Your task to perform on an android device: Do I have any events tomorrow? Image 0: 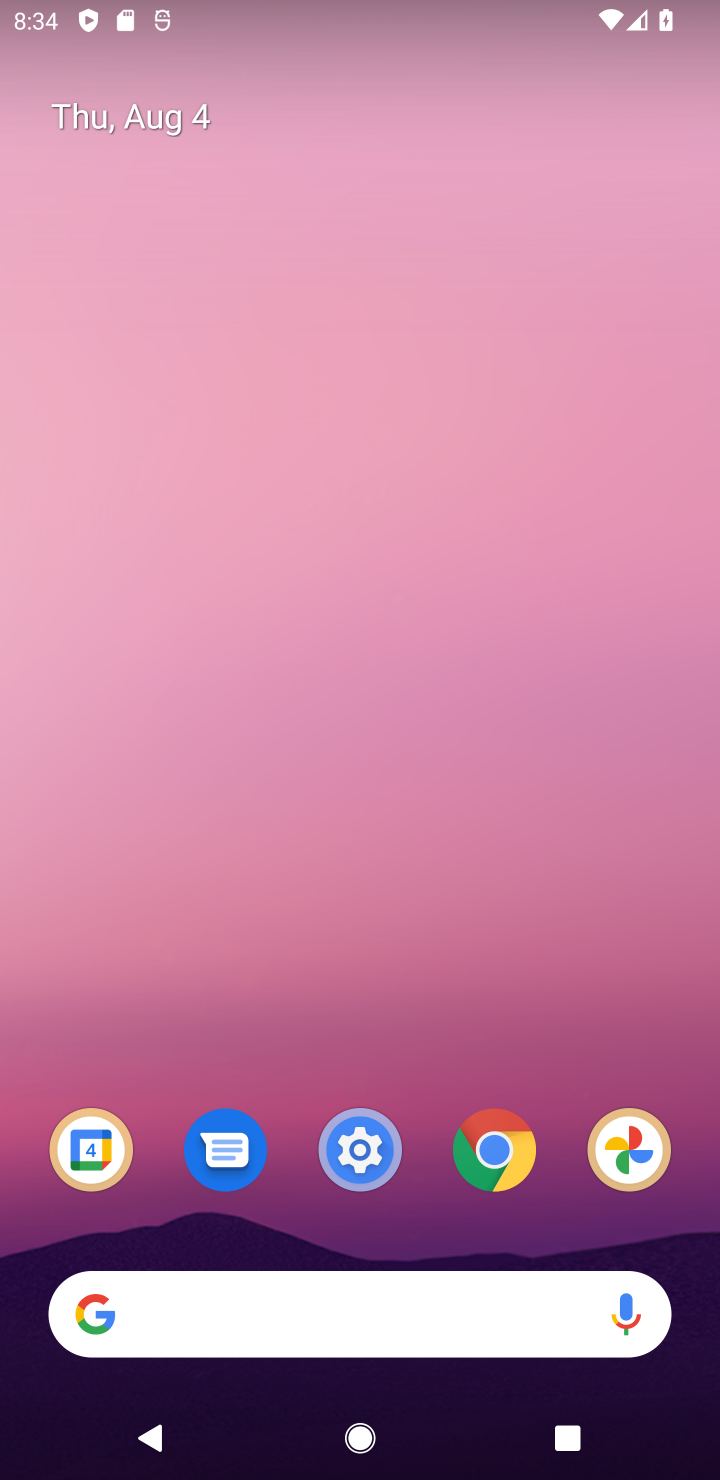
Step 0: drag from (371, 1240) to (659, 37)
Your task to perform on an android device: Do I have any events tomorrow? Image 1: 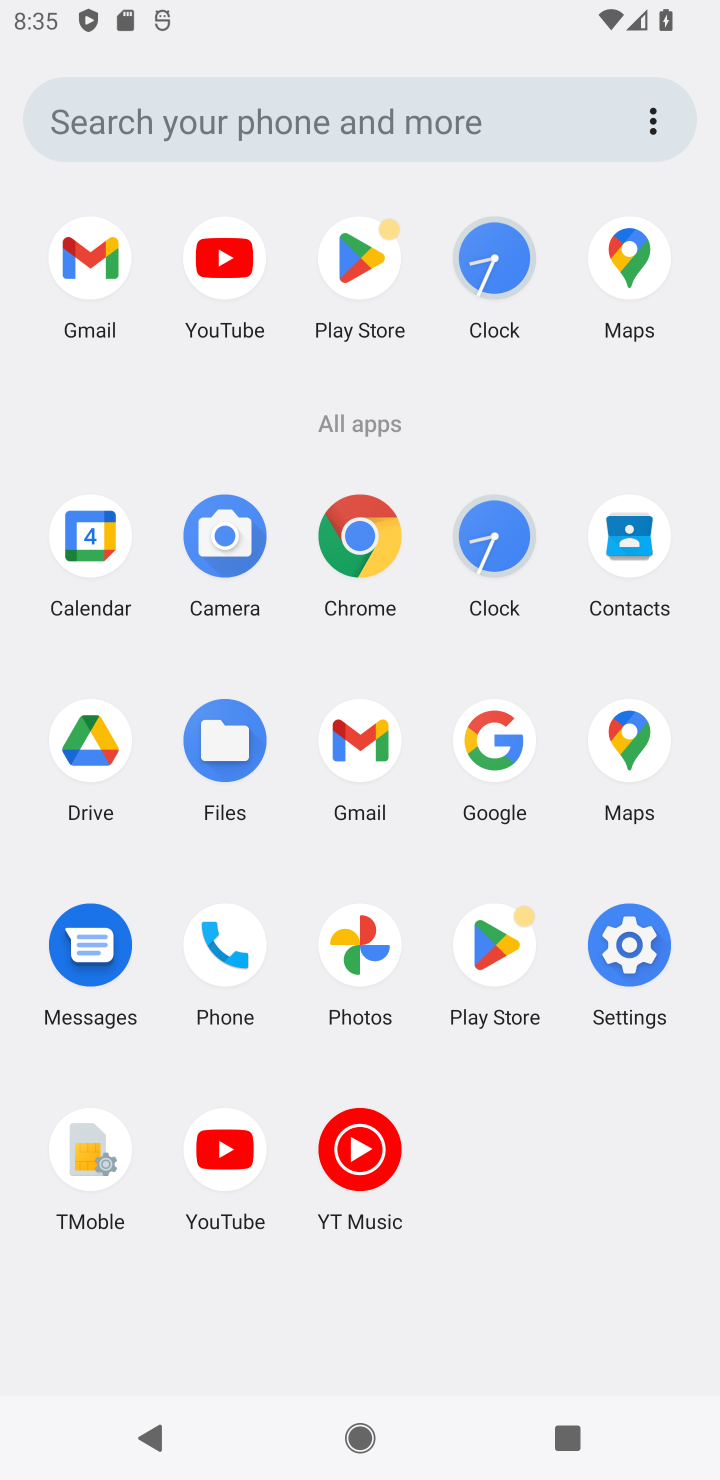
Step 1: click (103, 522)
Your task to perform on an android device: Do I have any events tomorrow? Image 2: 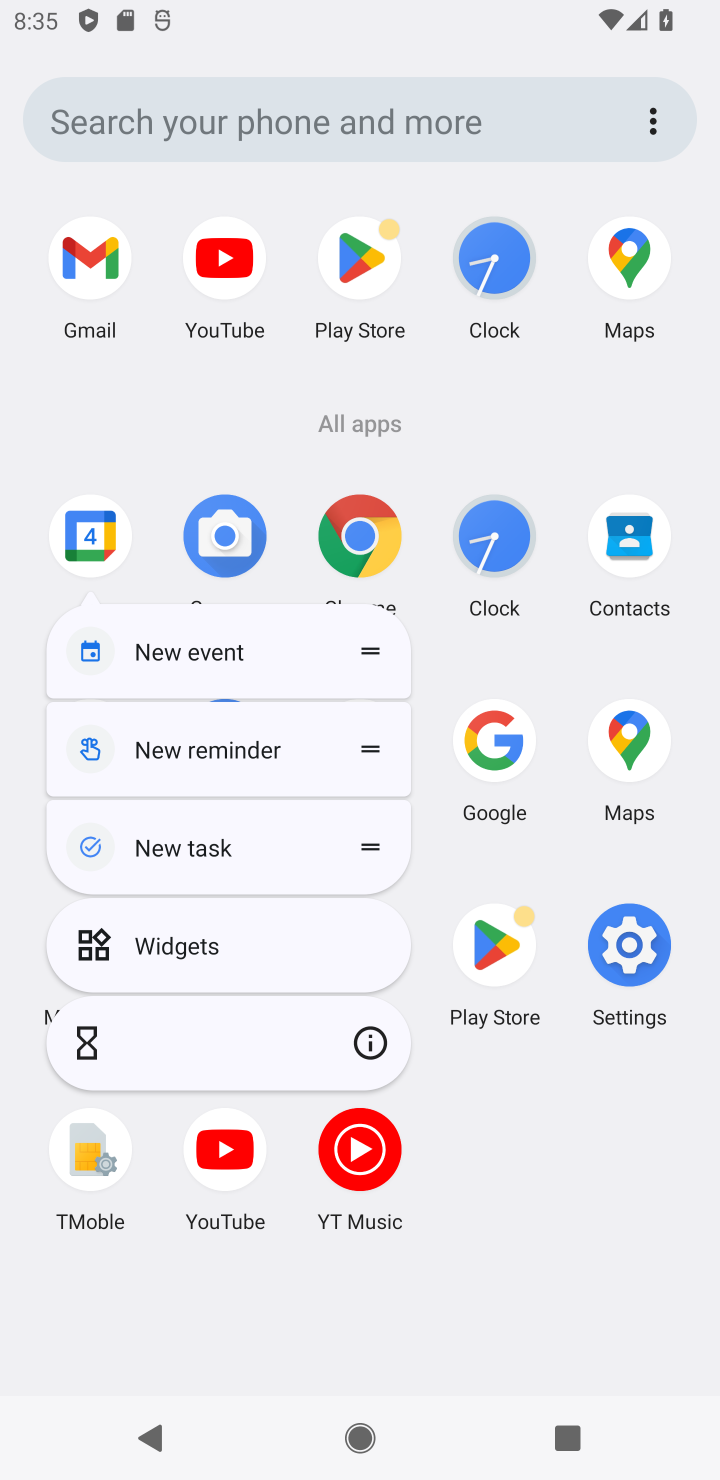
Step 2: click (89, 560)
Your task to perform on an android device: Do I have any events tomorrow? Image 3: 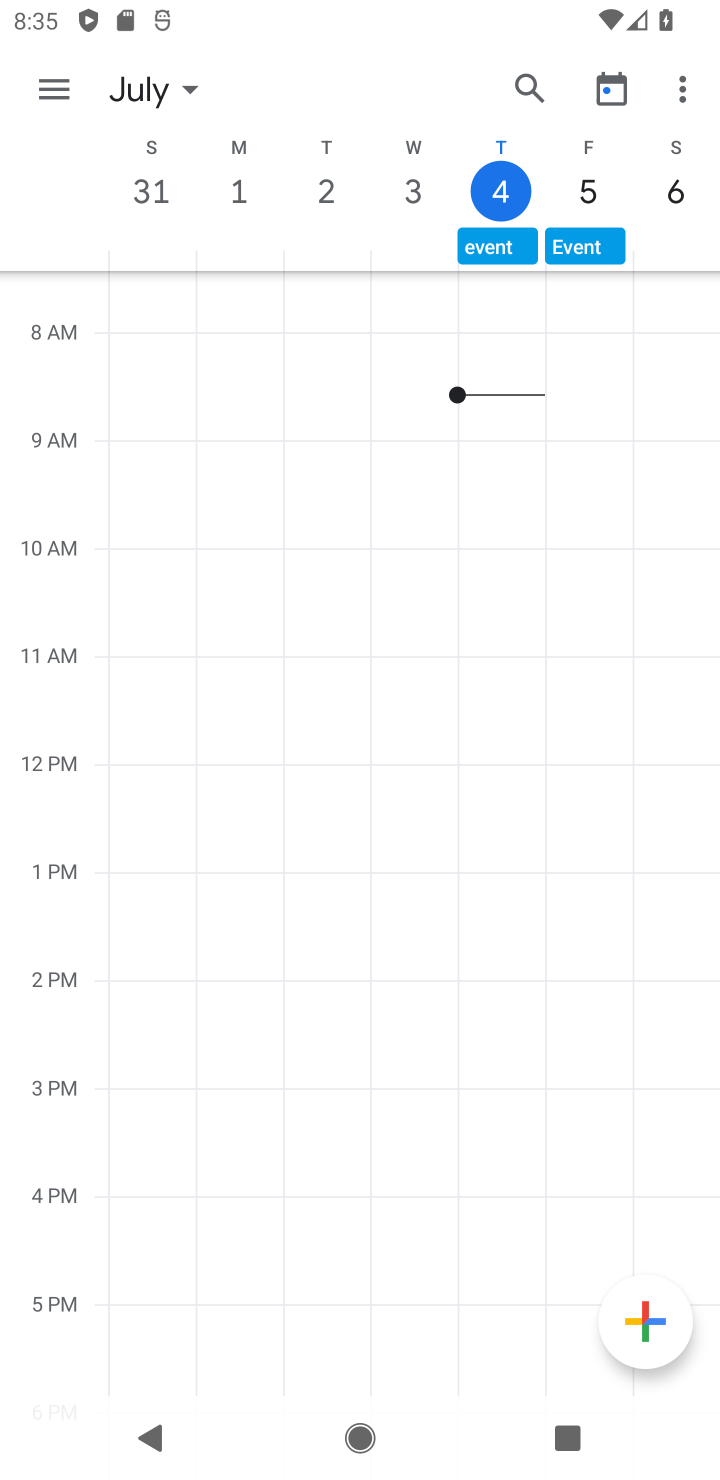
Step 3: click (593, 194)
Your task to perform on an android device: Do I have any events tomorrow? Image 4: 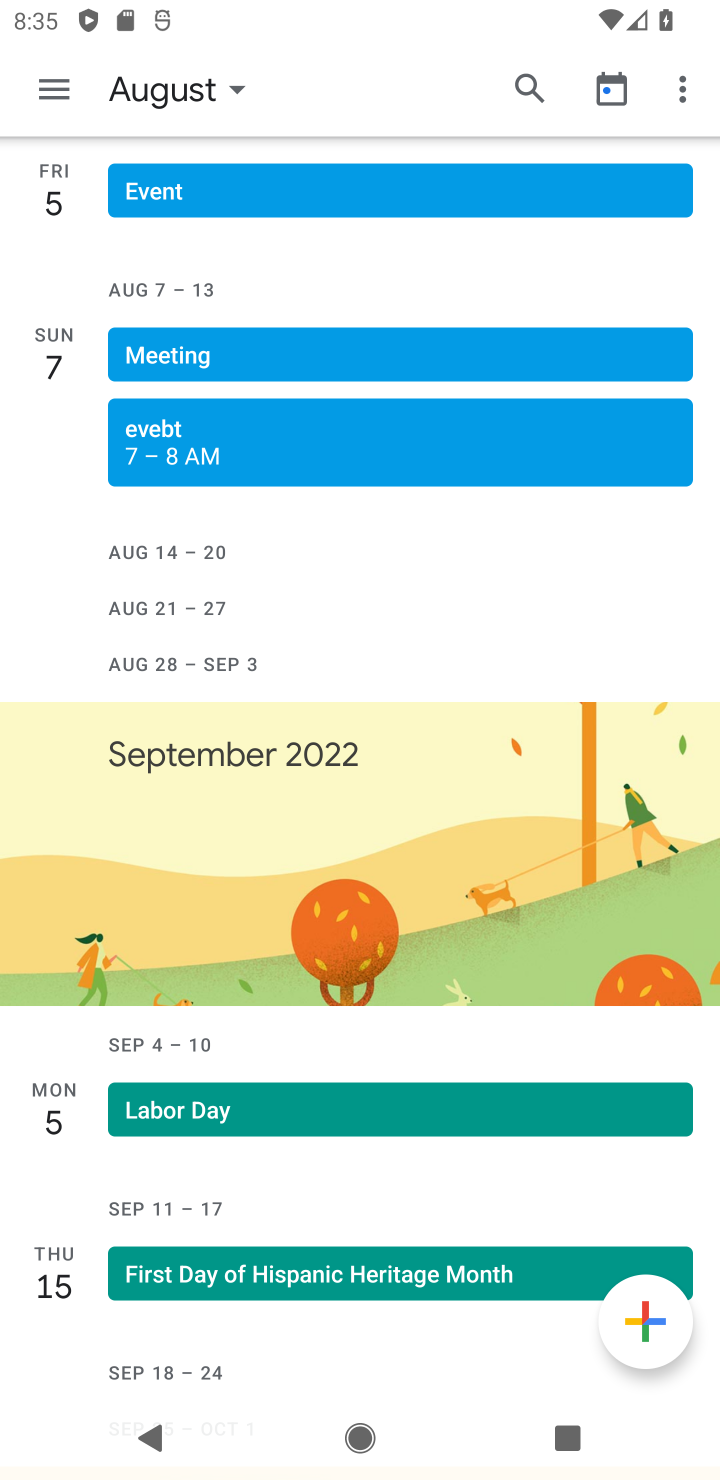
Step 4: task complete